Your task to perform on an android device: Search for seafood restaurants on Google Maps Image 0: 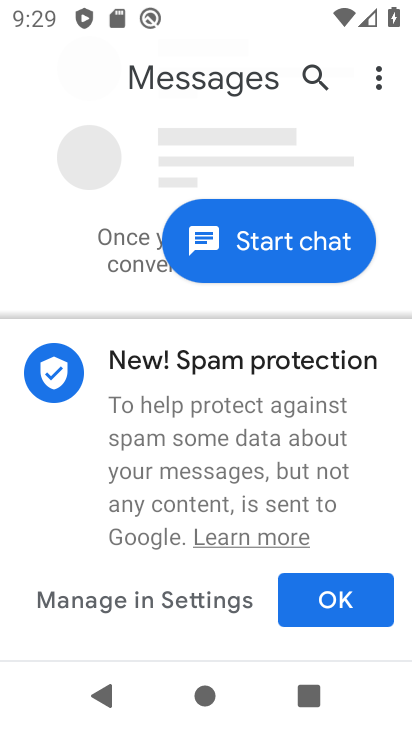
Step 0: press home button
Your task to perform on an android device: Search for seafood restaurants on Google Maps Image 1: 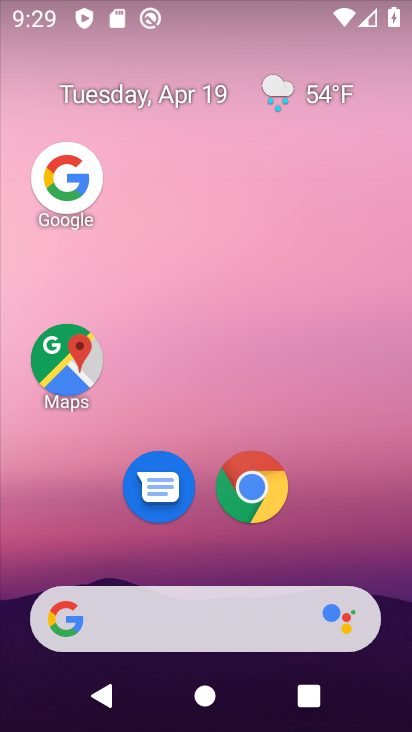
Step 1: click (64, 355)
Your task to perform on an android device: Search for seafood restaurants on Google Maps Image 2: 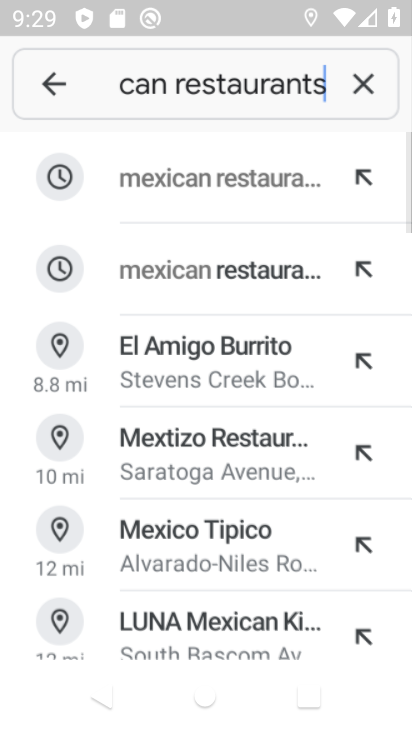
Step 2: click (350, 87)
Your task to perform on an android device: Search for seafood restaurants on Google Maps Image 3: 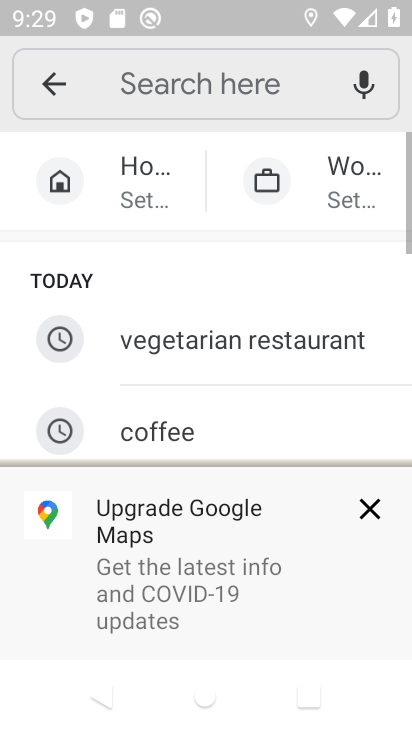
Step 3: click (208, 97)
Your task to perform on an android device: Search for seafood restaurants on Google Maps Image 4: 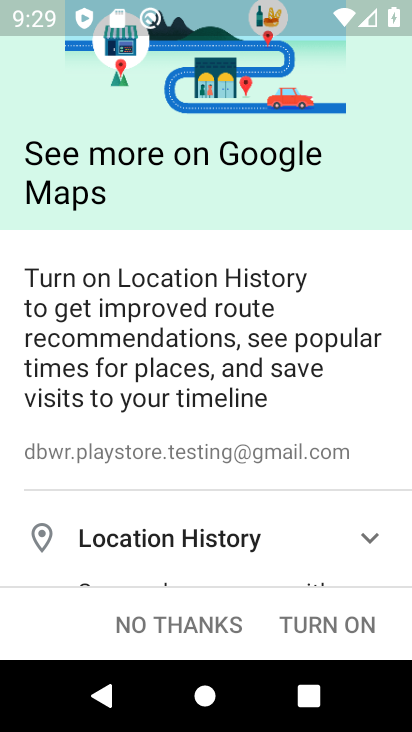
Step 4: type "s"
Your task to perform on an android device: Search for seafood restaurants on Google Maps Image 5: 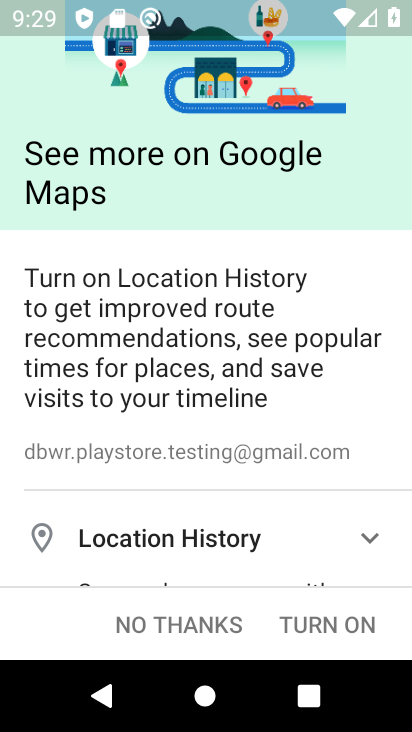
Step 5: click (327, 602)
Your task to perform on an android device: Search for seafood restaurants on Google Maps Image 6: 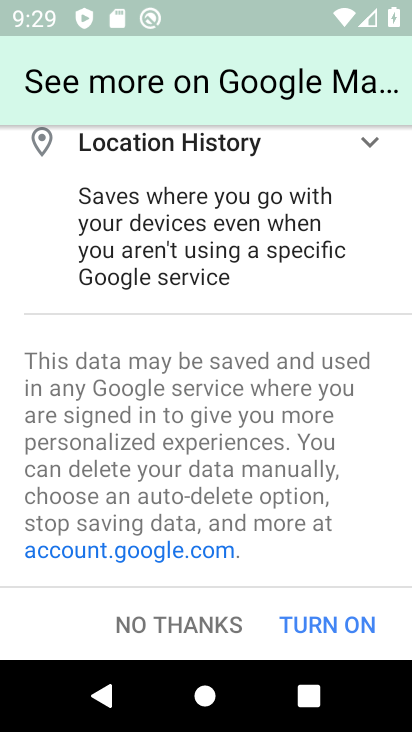
Step 6: click (327, 602)
Your task to perform on an android device: Search for seafood restaurants on Google Maps Image 7: 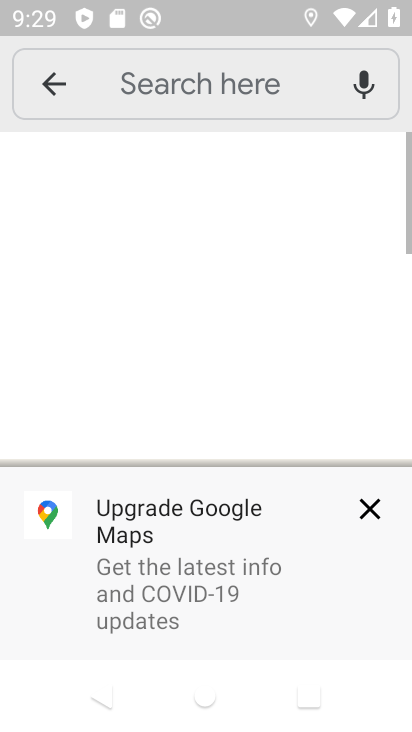
Step 7: click (327, 602)
Your task to perform on an android device: Search for seafood restaurants on Google Maps Image 8: 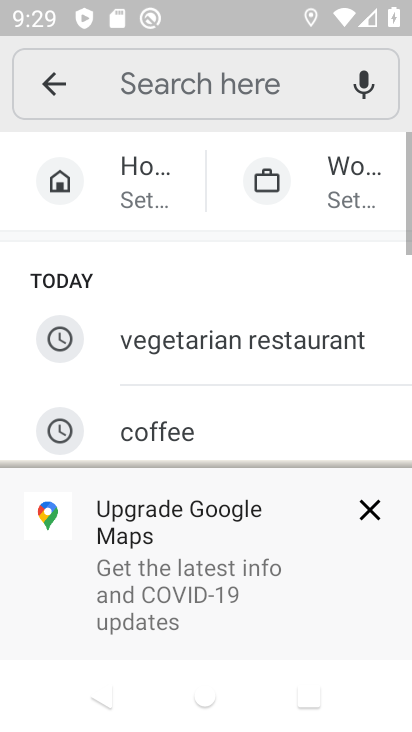
Step 8: click (228, 74)
Your task to perform on an android device: Search for seafood restaurants on Google Maps Image 9: 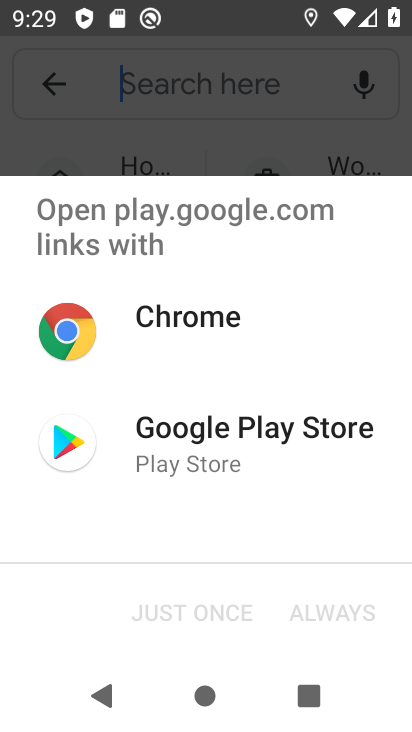
Step 9: type "sss"
Your task to perform on an android device: Search for seafood restaurants on Google Maps Image 10: 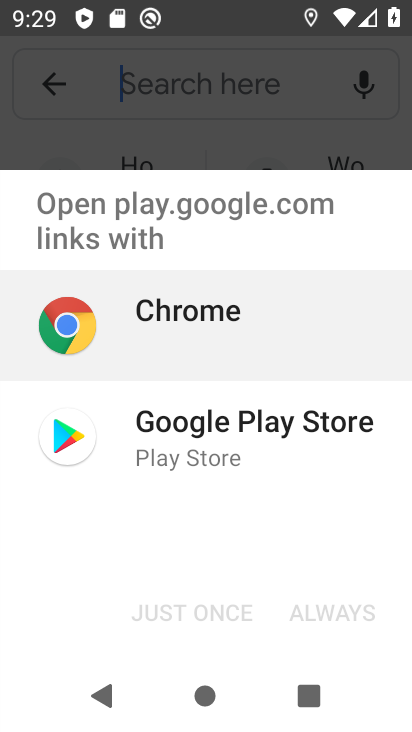
Step 10: press back button
Your task to perform on an android device: Search for seafood restaurants on Google Maps Image 11: 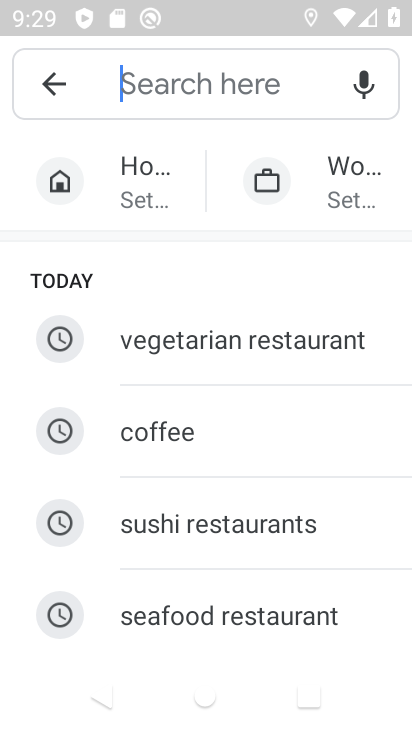
Step 11: type "seafood restaurants"
Your task to perform on an android device: Search for seafood restaurants on Google Maps Image 12: 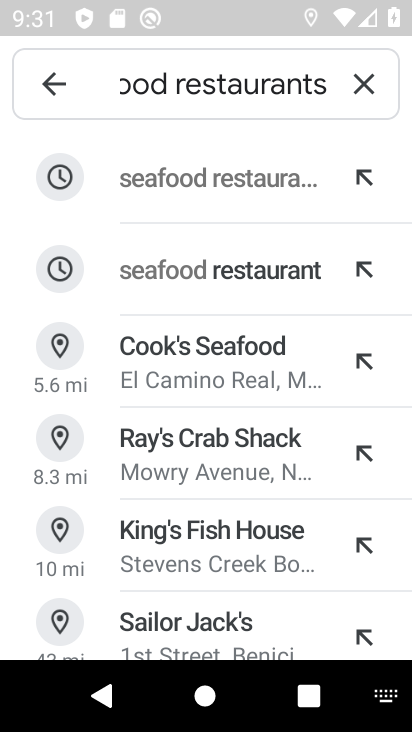
Step 12: task complete